Your task to perform on an android device: Search for pizza restaurants on Maps Image 0: 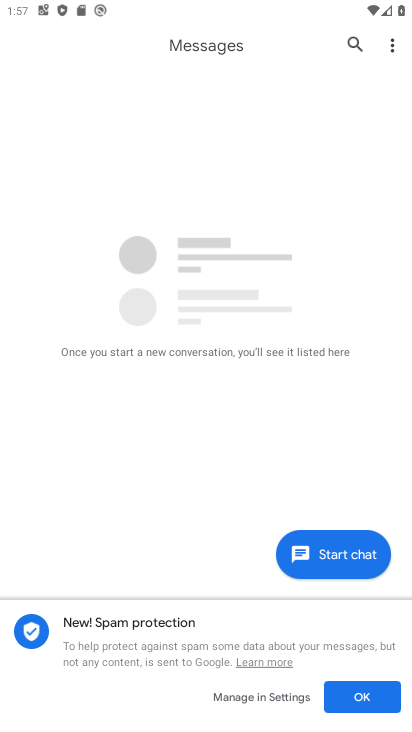
Step 0: press home button
Your task to perform on an android device: Search for pizza restaurants on Maps Image 1: 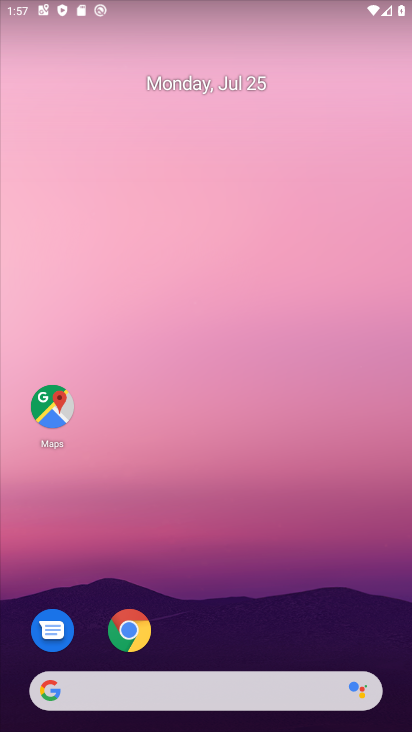
Step 1: drag from (246, 635) to (227, 198)
Your task to perform on an android device: Search for pizza restaurants on Maps Image 2: 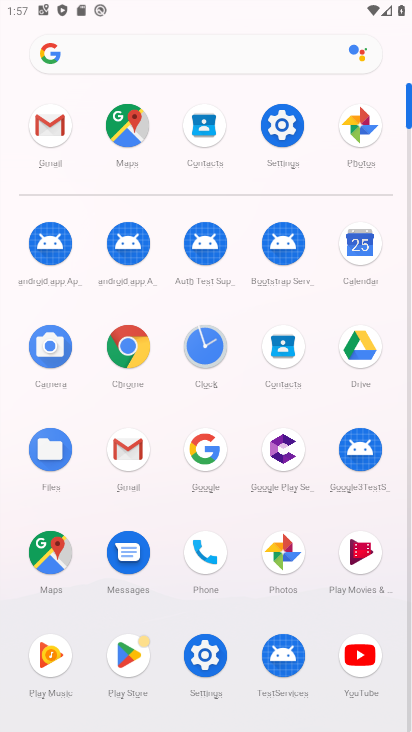
Step 2: click (124, 135)
Your task to perform on an android device: Search for pizza restaurants on Maps Image 3: 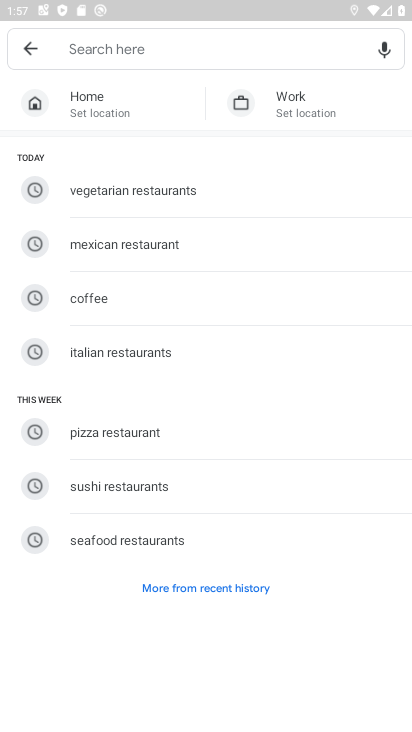
Step 3: click (115, 422)
Your task to perform on an android device: Search for pizza restaurants on Maps Image 4: 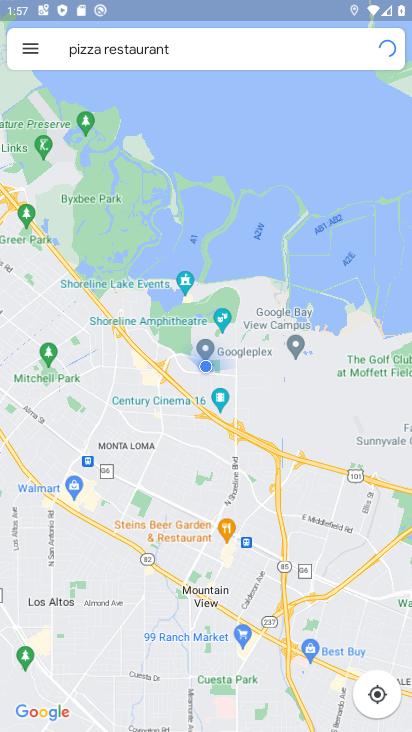
Step 4: task complete